Your task to perform on an android device: Add amazon basics triple a to the cart on newegg Image 0: 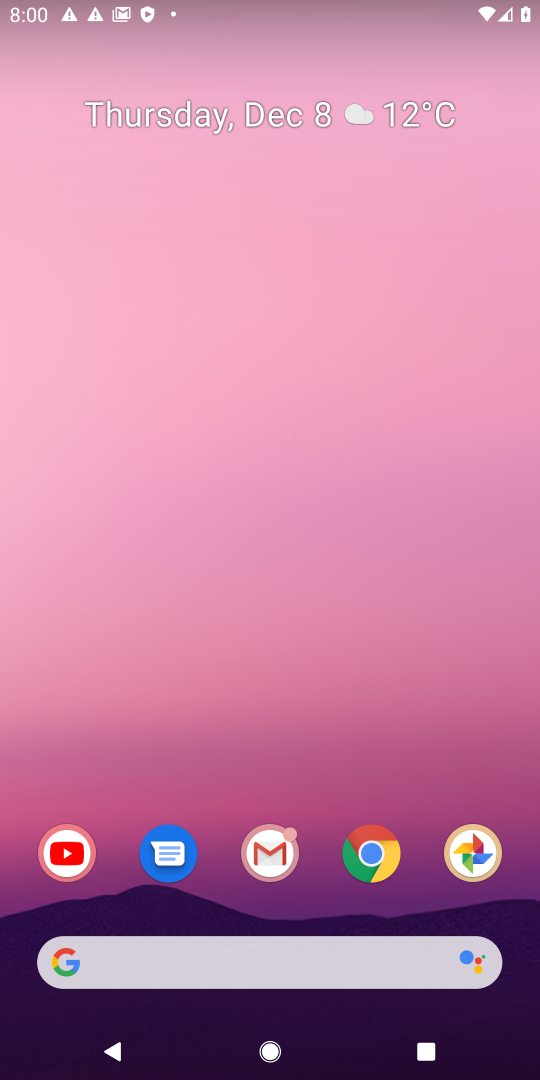
Step 0: click (397, 943)
Your task to perform on an android device: Add amazon basics triple a to the cart on newegg Image 1: 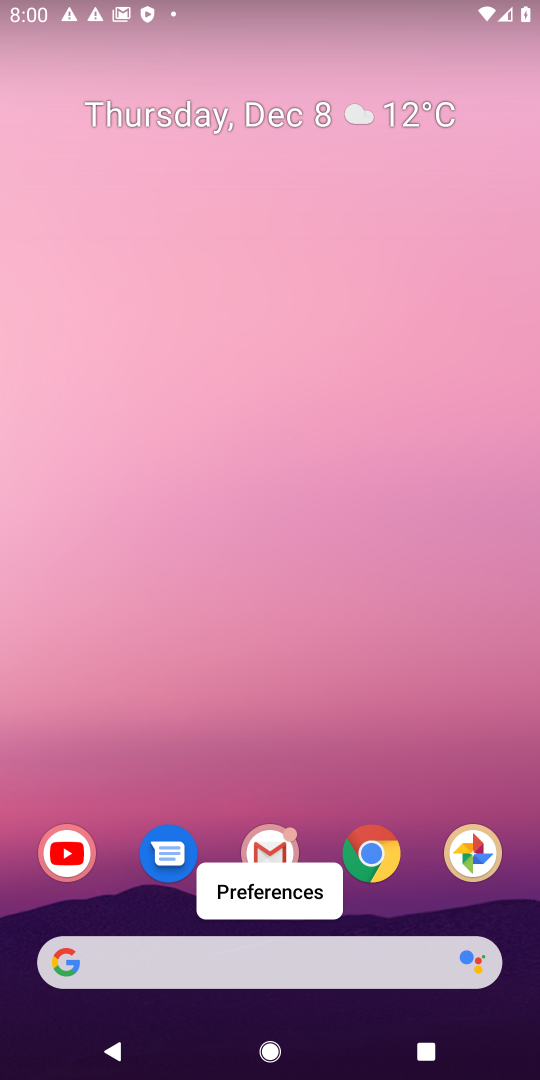
Step 1: click (368, 845)
Your task to perform on an android device: Add amazon basics triple a to the cart on newegg Image 2: 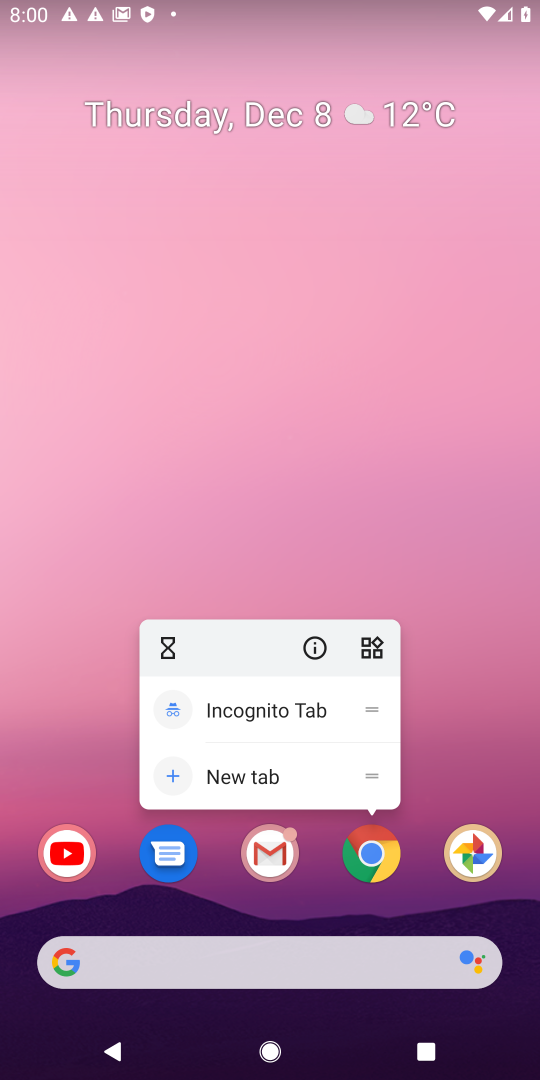
Step 2: click (464, 841)
Your task to perform on an android device: Add amazon basics triple a to the cart on newegg Image 3: 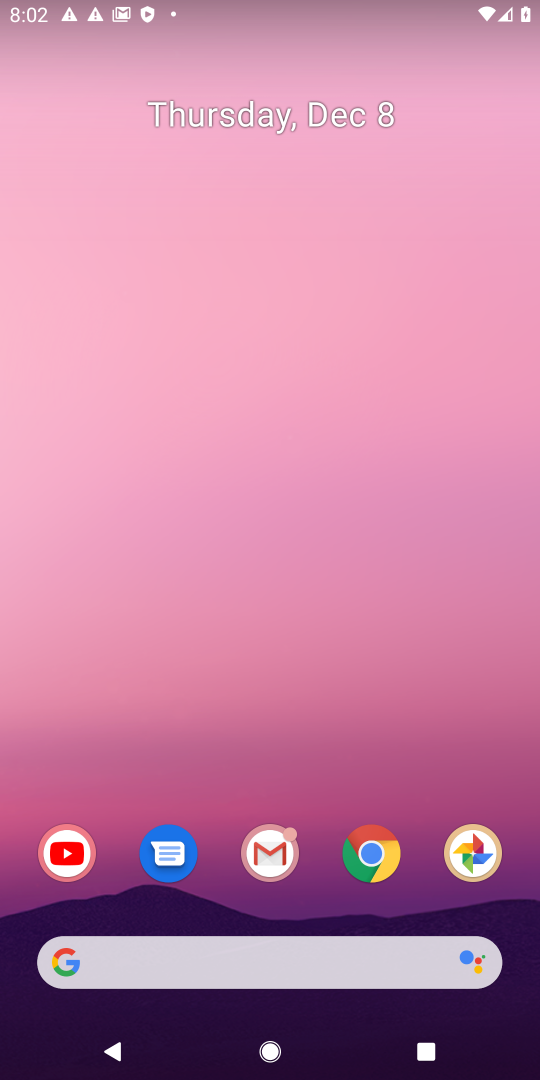
Step 3: click (292, 872)
Your task to perform on an android device: Add amazon basics triple a to the cart on newegg Image 4: 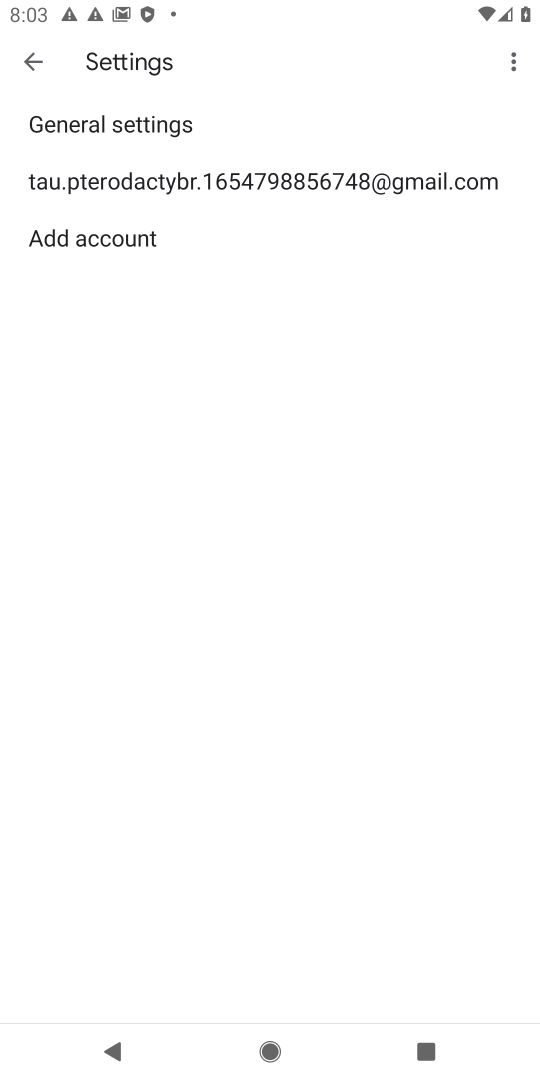
Step 4: task complete